Your task to perform on an android device: set the stopwatch Image 0: 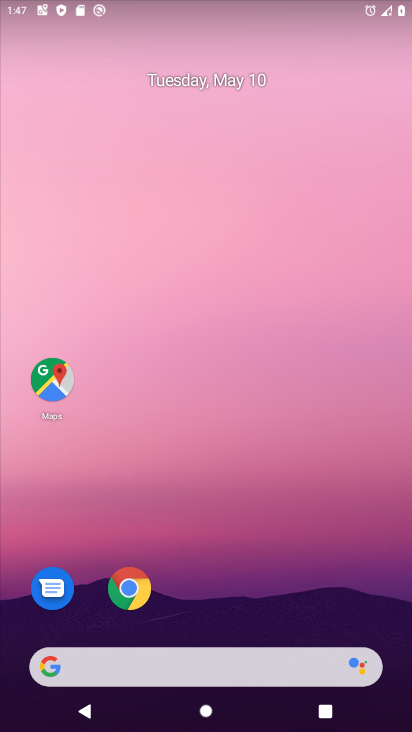
Step 0: drag from (212, 603) to (233, 204)
Your task to perform on an android device: set the stopwatch Image 1: 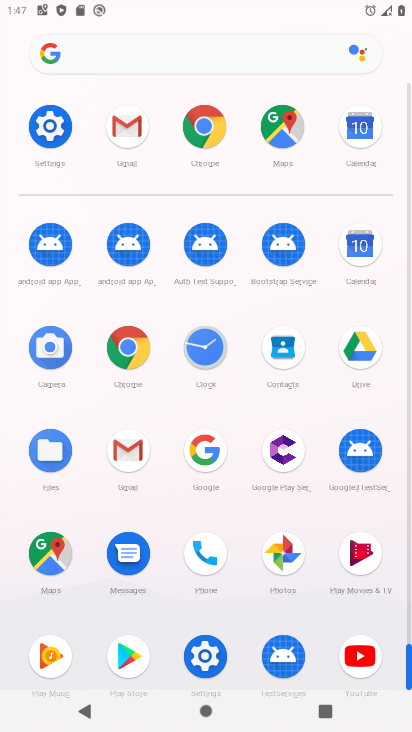
Step 1: click (192, 340)
Your task to perform on an android device: set the stopwatch Image 2: 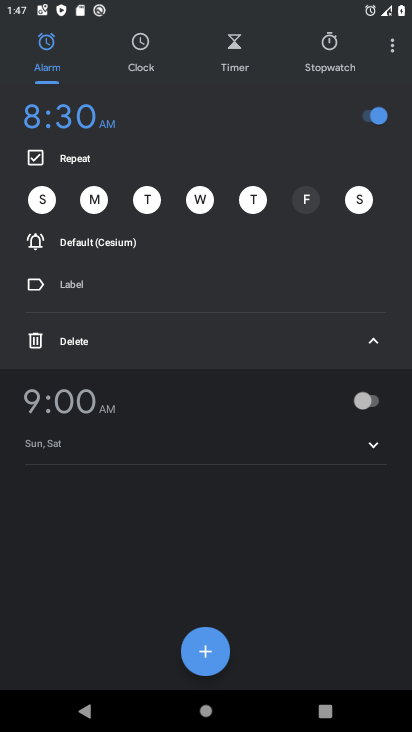
Step 2: click (346, 54)
Your task to perform on an android device: set the stopwatch Image 3: 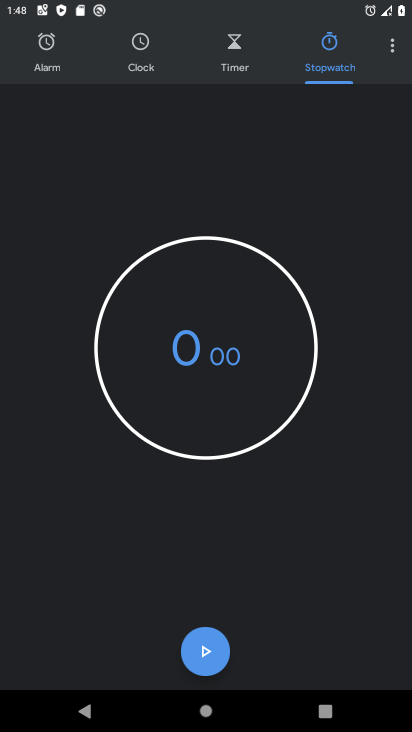
Step 3: task complete